Your task to perform on an android device: What's the weather today? Image 0: 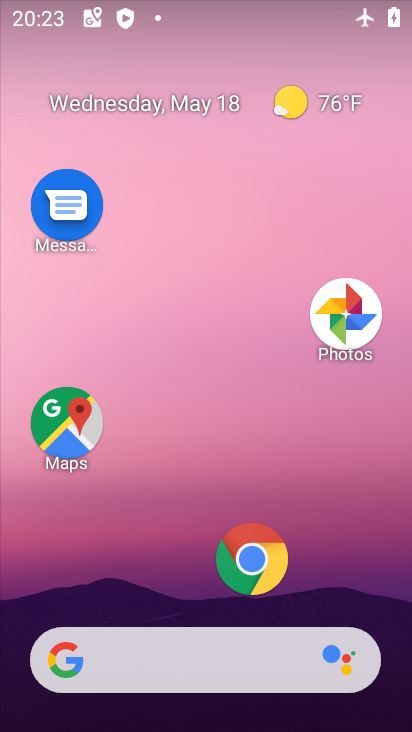
Step 0: click (203, 675)
Your task to perform on an android device: What's the weather today? Image 1: 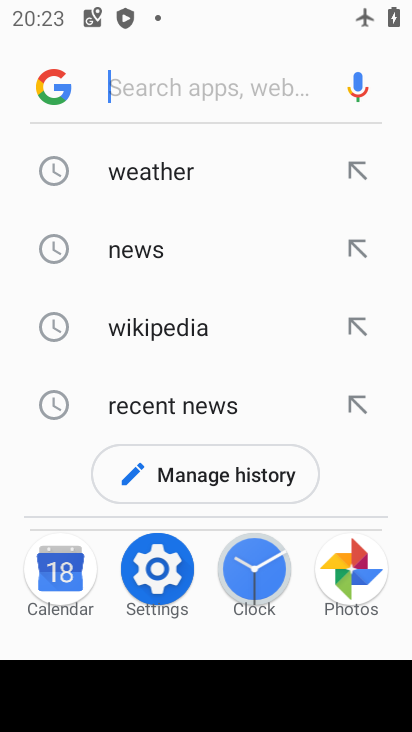
Step 1: click (192, 179)
Your task to perform on an android device: What's the weather today? Image 2: 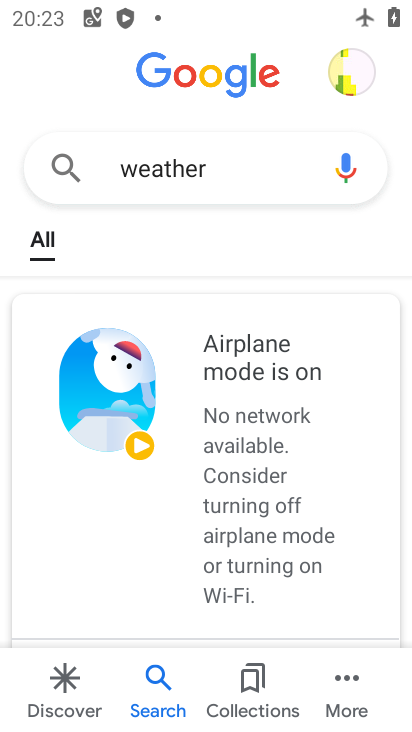
Step 2: task complete